Your task to perform on an android device: Go to accessibility settings Image 0: 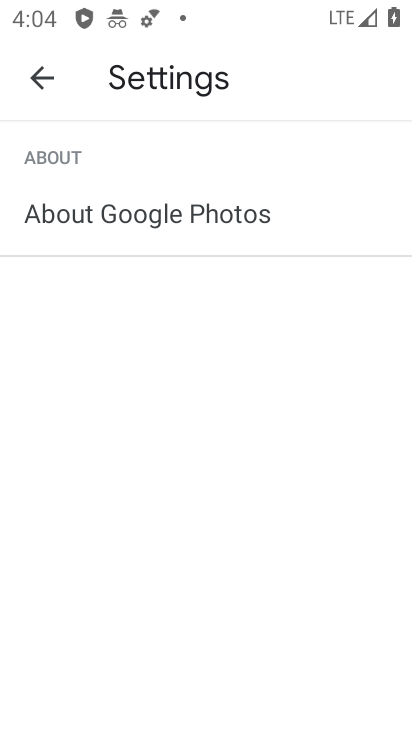
Step 0: press back button
Your task to perform on an android device: Go to accessibility settings Image 1: 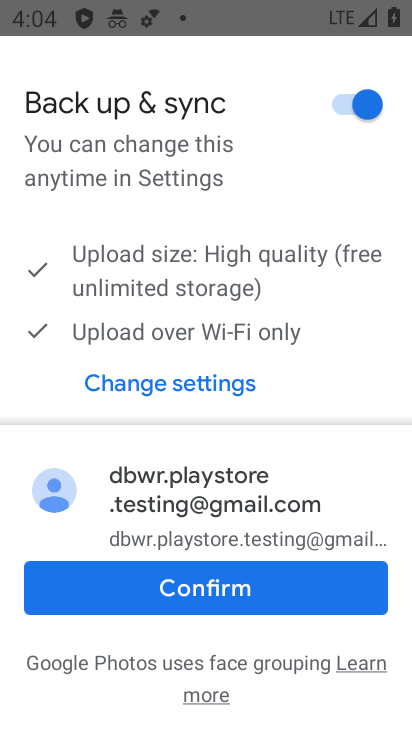
Step 1: press home button
Your task to perform on an android device: Go to accessibility settings Image 2: 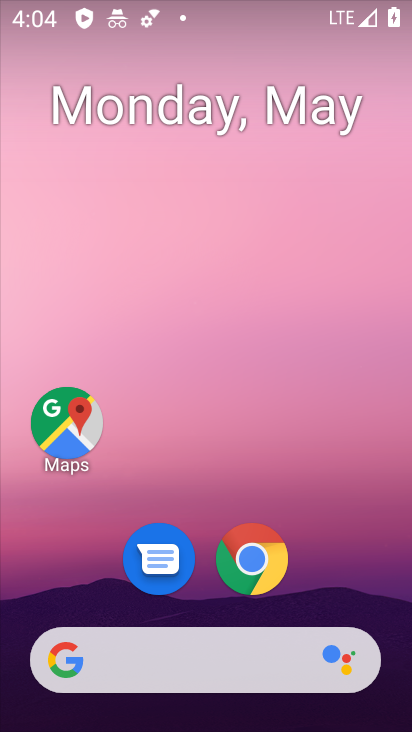
Step 2: drag from (342, 596) to (254, 33)
Your task to perform on an android device: Go to accessibility settings Image 3: 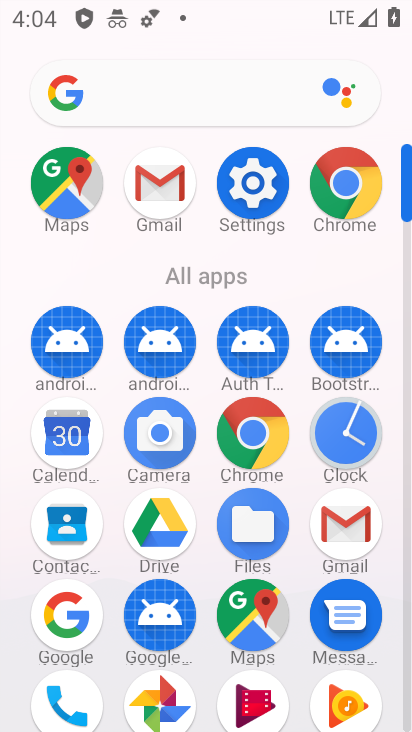
Step 3: click (248, 184)
Your task to perform on an android device: Go to accessibility settings Image 4: 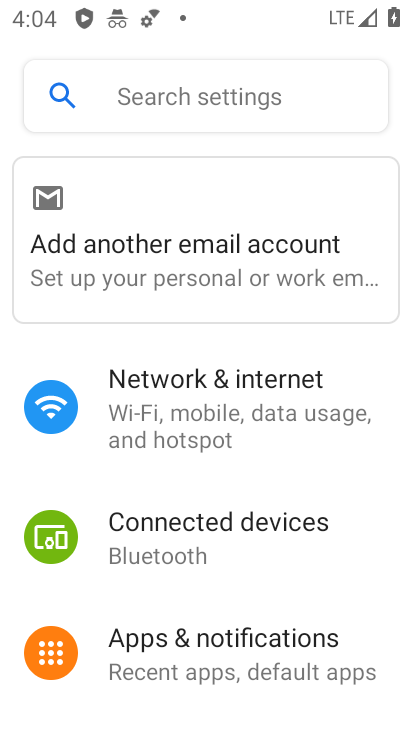
Step 4: drag from (319, 578) to (284, 100)
Your task to perform on an android device: Go to accessibility settings Image 5: 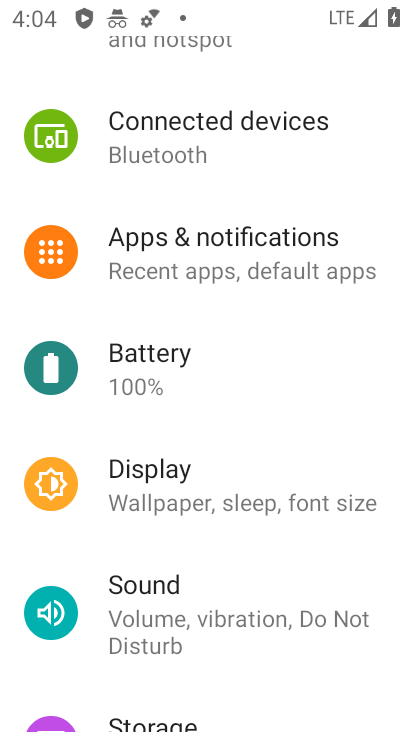
Step 5: drag from (252, 507) to (250, 133)
Your task to perform on an android device: Go to accessibility settings Image 6: 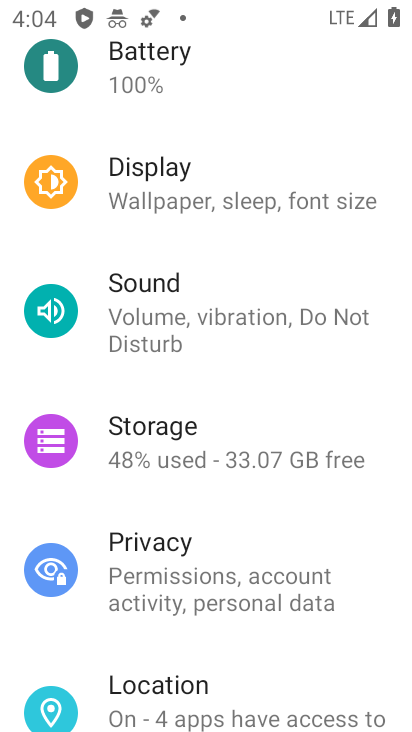
Step 6: drag from (275, 543) to (279, 154)
Your task to perform on an android device: Go to accessibility settings Image 7: 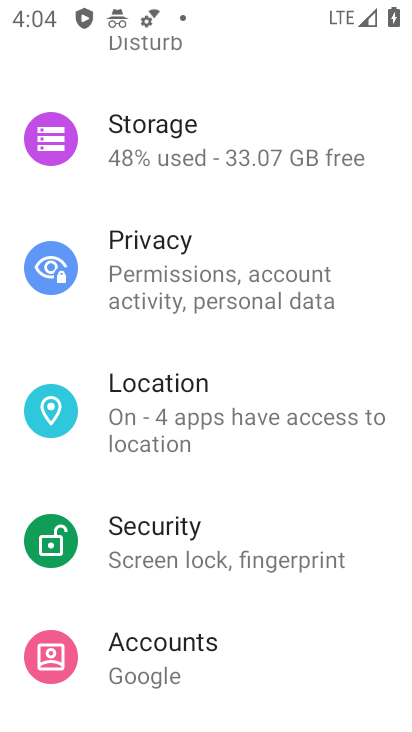
Step 7: drag from (277, 560) to (281, 139)
Your task to perform on an android device: Go to accessibility settings Image 8: 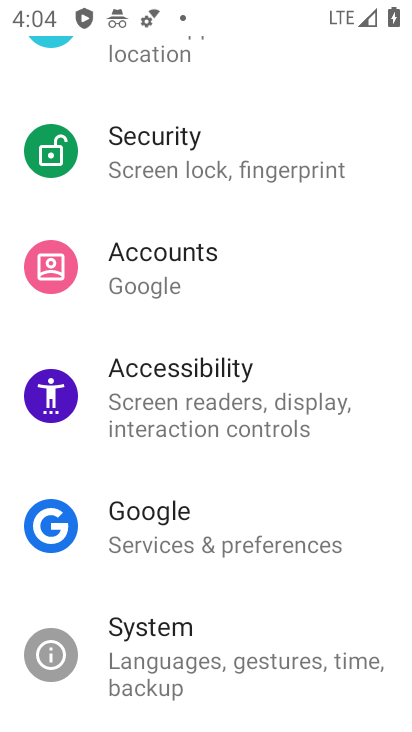
Step 8: click (195, 359)
Your task to perform on an android device: Go to accessibility settings Image 9: 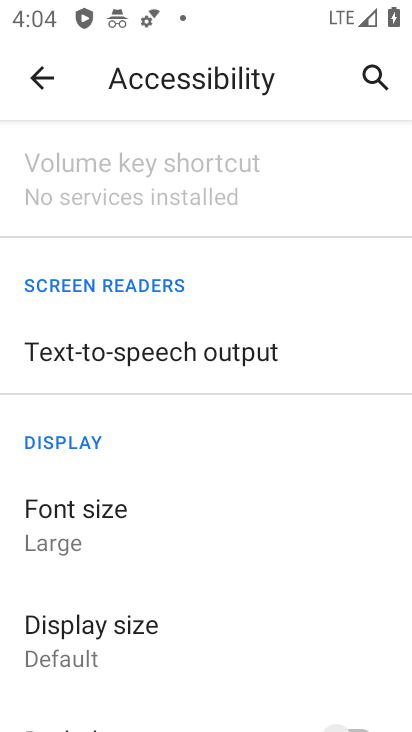
Step 9: drag from (243, 566) to (248, 208)
Your task to perform on an android device: Go to accessibility settings Image 10: 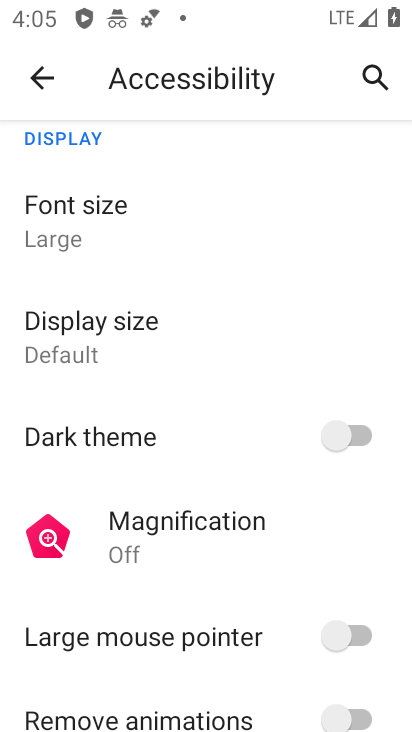
Step 10: drag from (226, 569) to (204, 149)
Your task to perform on an android device: Go to accessibility settings Image 11: 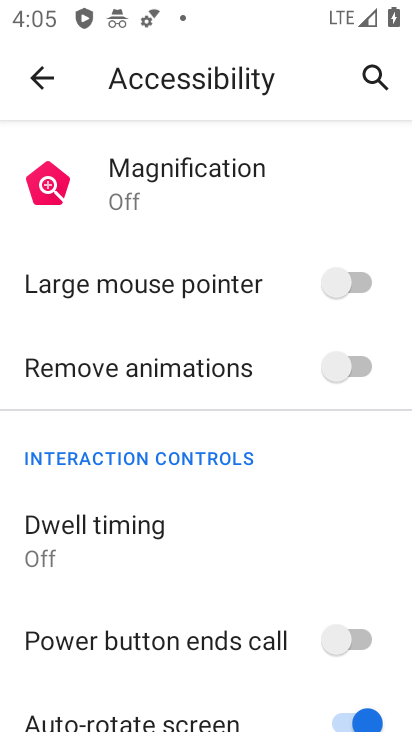
Step 11: drag from (181, 608) to (190, 162)
Your task to perform on an android device: Go to accessibility settings Image 12: 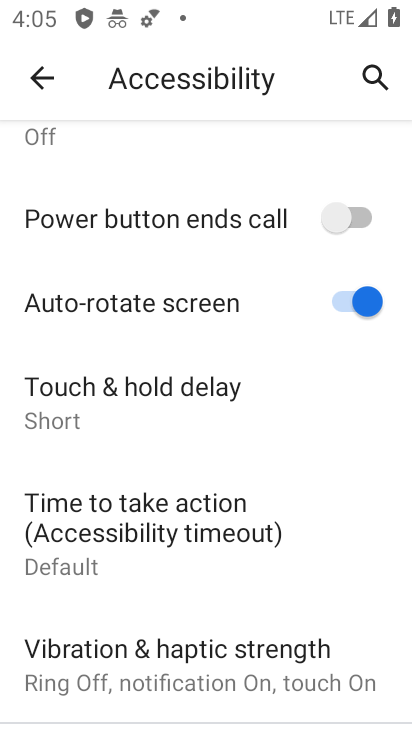
Step 12: drag from (187, 488) to (182, 153)
Your task to perform on an android device: Go to accessibility settings Image 13: 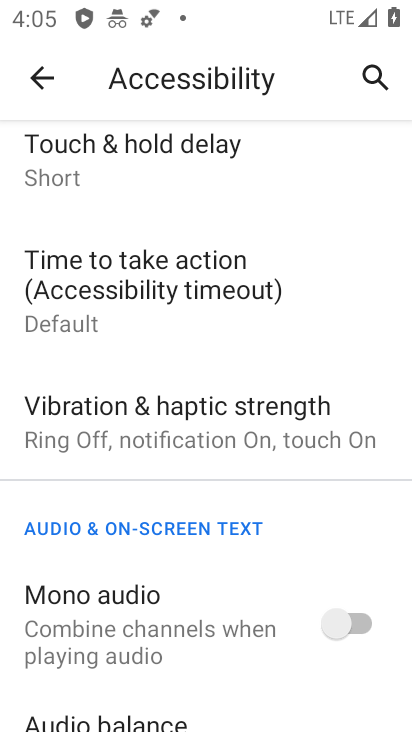
Step 13: drag from (189, 179) to (189, 350)
Your task to perform on an android device: Go to accessibility settings Image 14: 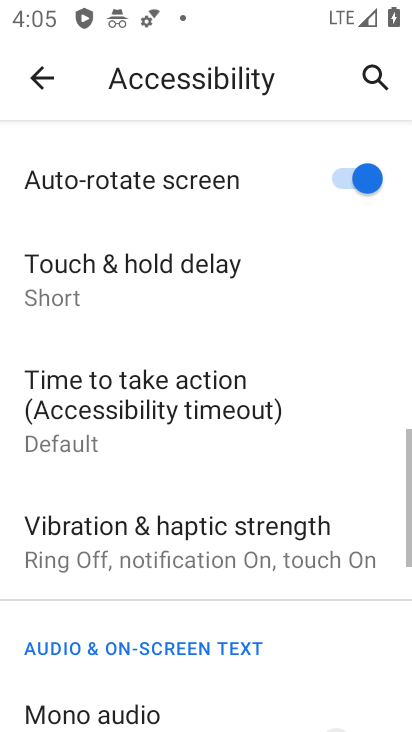
Step 14: click (181, 641)
Your task to perform on an android device: Go to accessibility settings Image 15: 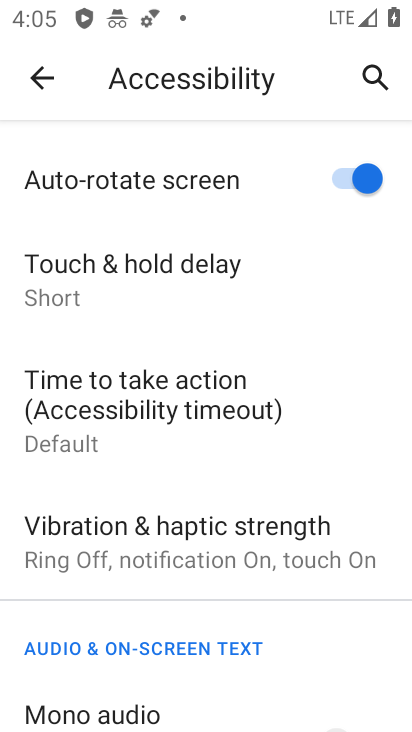
Step 15: task complete